Your task to perform on an android device: toggle notification dots Image 0: 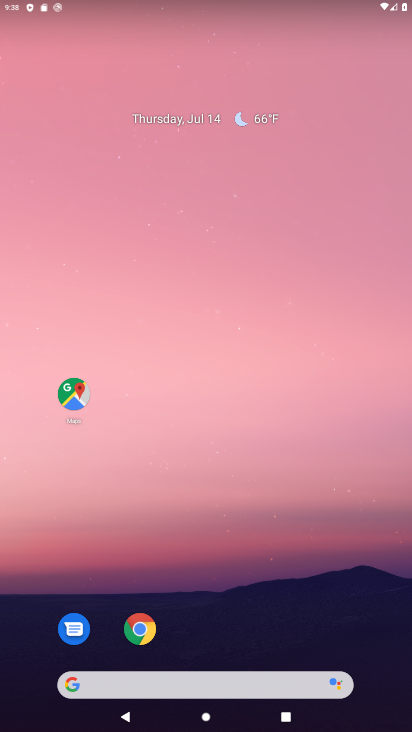
Step 0: press home button
Your task to perform on an android device: toggle notification dots Image 1: 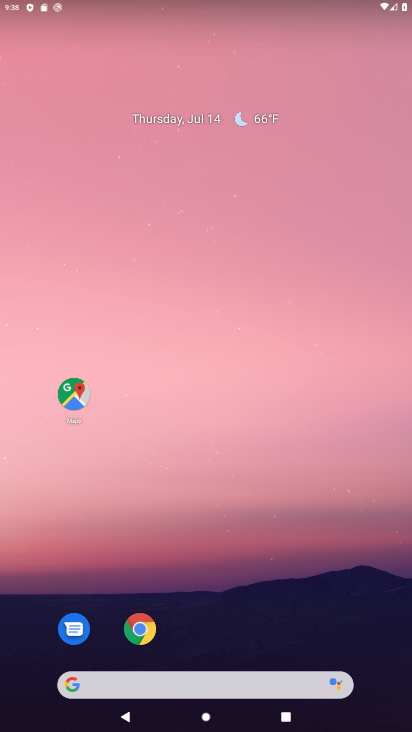
Step 1: drag from (293, 610) to (299, 33)
Your task to perform on an android device: toggle notification dots Image 2: 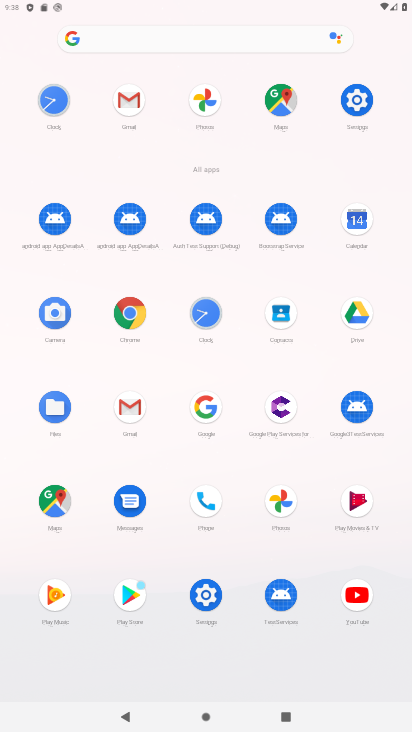
Step 2: click (359, 94)
Your task to perform on an android device: toggle notification dots Image 3: 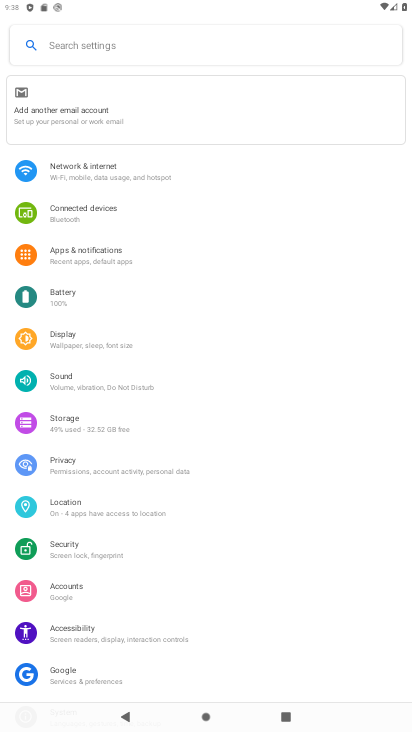
Step 3: click (91, 247)
Your task to perform on an android device: toggle notification dots Image 4: 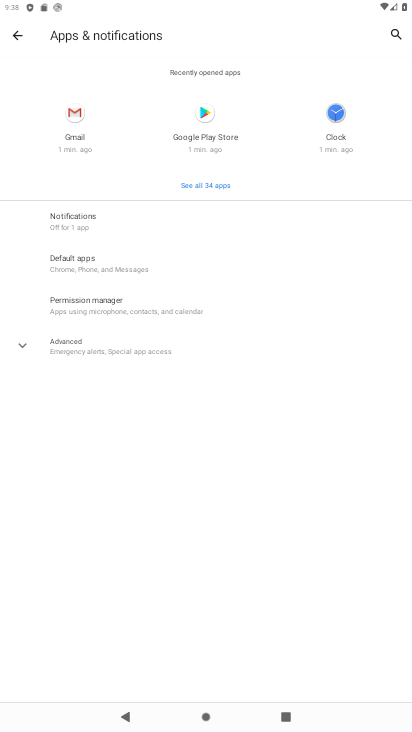
Step 4: click (89, 222)
Your task to perform on an android device: toggle notification dots Image 5: 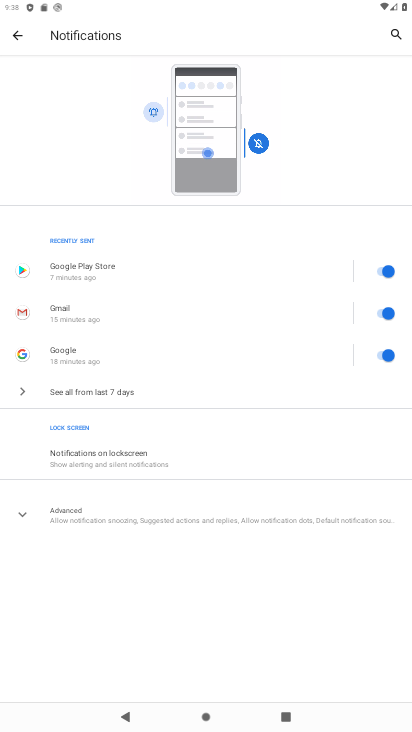
Step 5: click (18, 511)
Your task to perform on an android device: toggle notification dots Image 6: 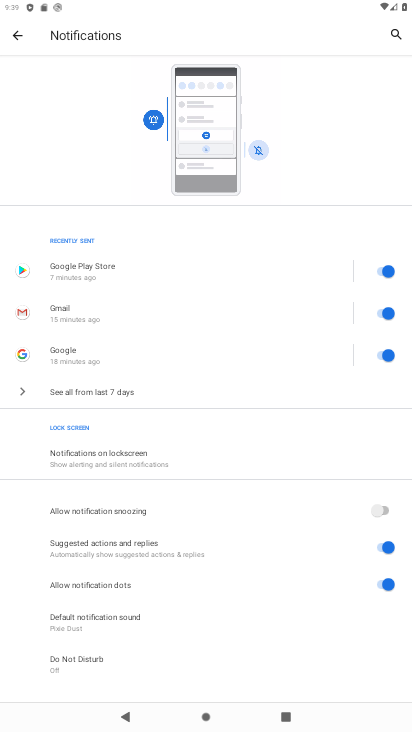
Step 6: click (386, 589)
Your task to perform on an android device: toggle notification dots Image 7: 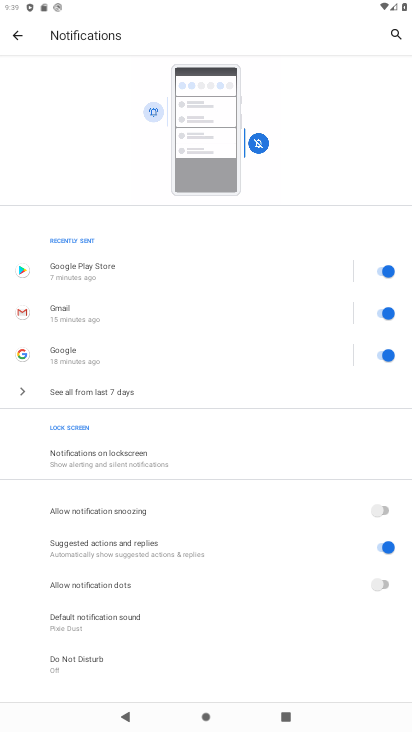
Step 7: task complete